Your task to perform on an android device: install app "Speedtest by Ookla" Image 0: 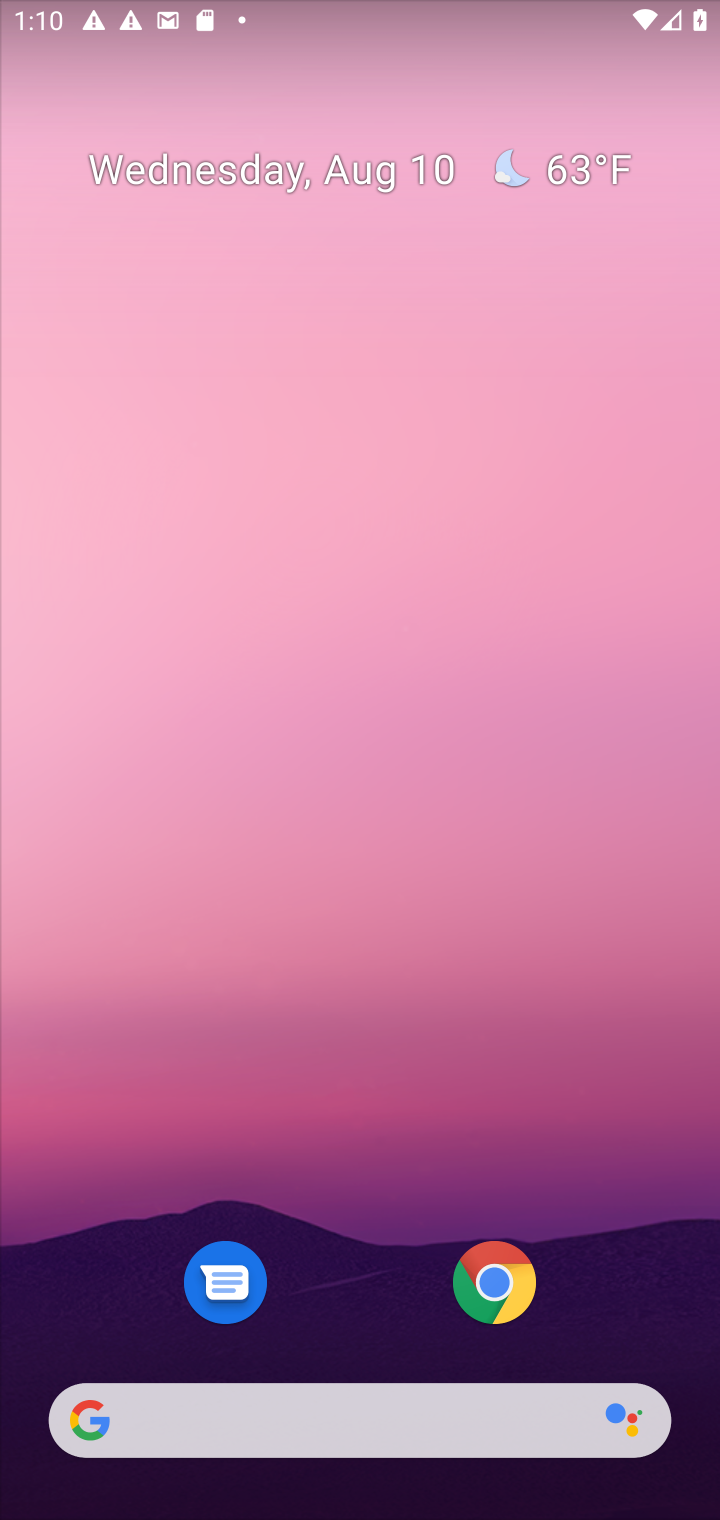
Step 0: drag from (97, 1251) to (117, 374)
Your task to perform on an android device: install app "Speedtest by Ookla" Image 1: 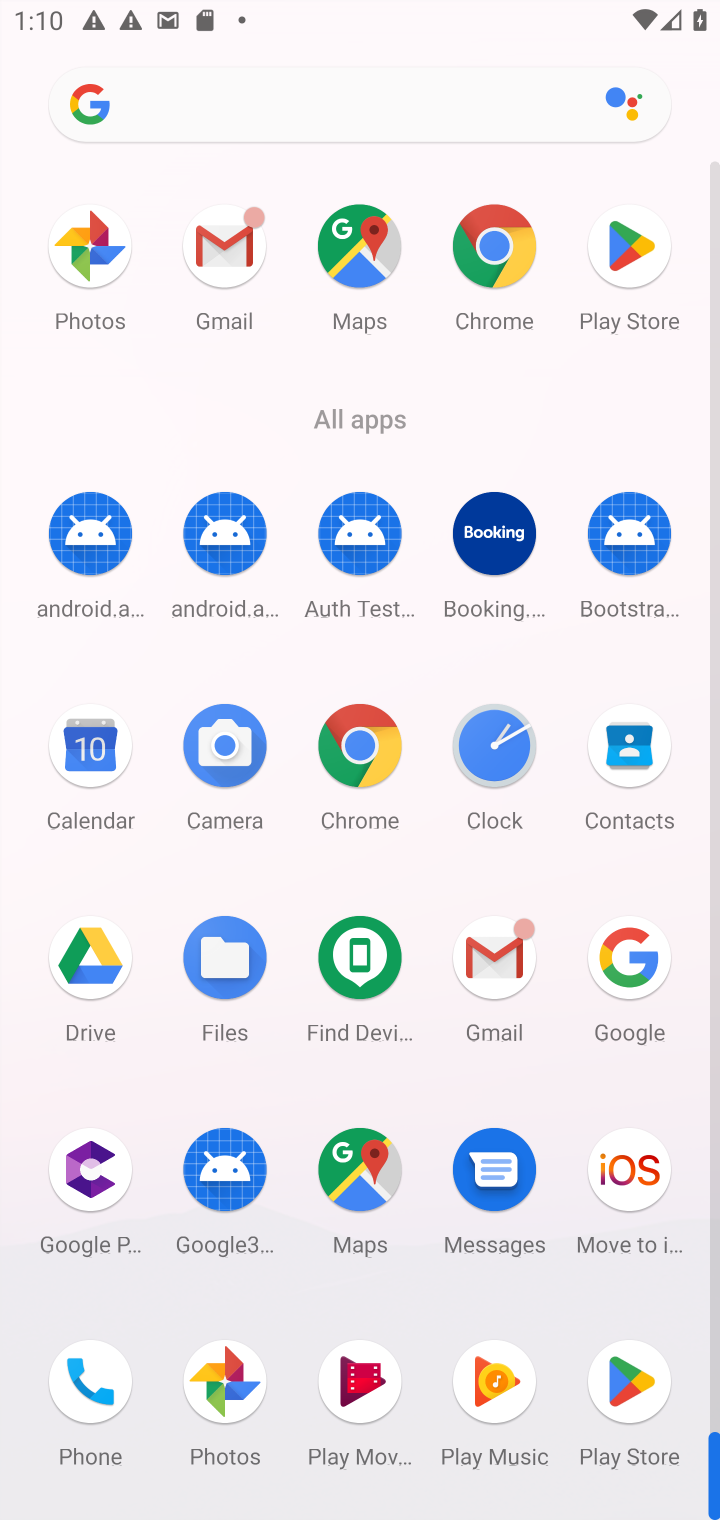
Step 1: click (634, 235)
Your task to perform on an android device: install app "Speedtest by Ookla" Image 2: 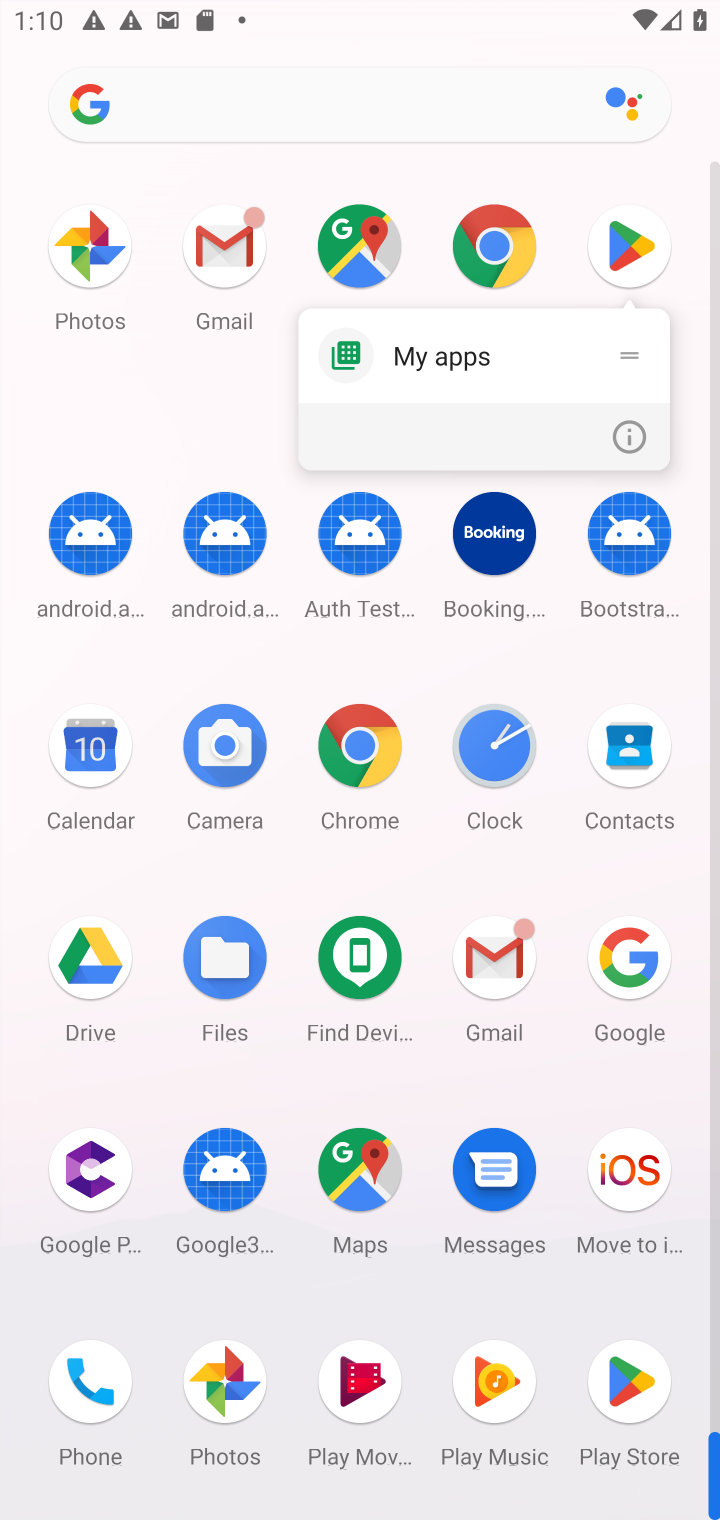
Step 2: click (612, 233)
Your task to perform on an android device: install app "Speedtest by Ookla" Image 3: 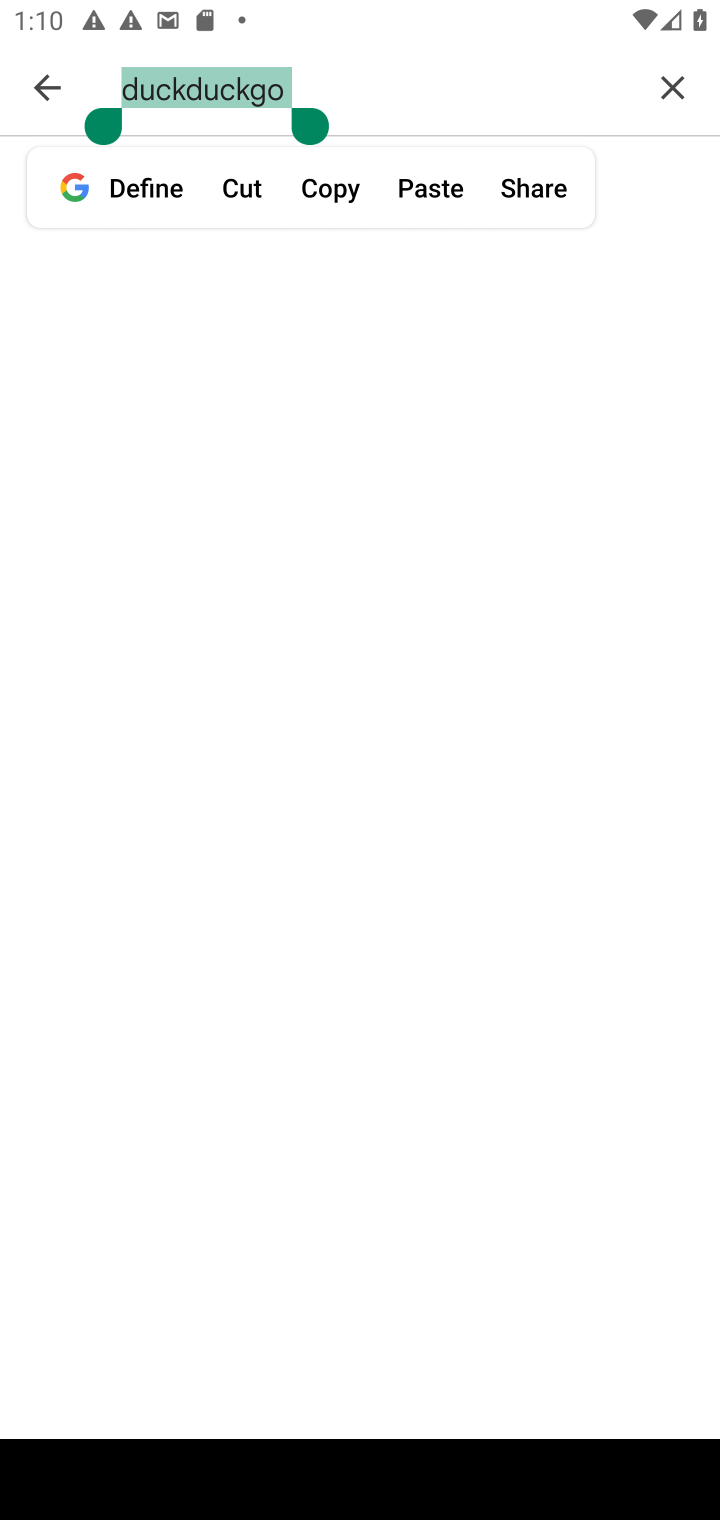
Step 3: click (668, 61)
Your task to perform on an android device: install app "Speedtest by Ookla" Image 4: 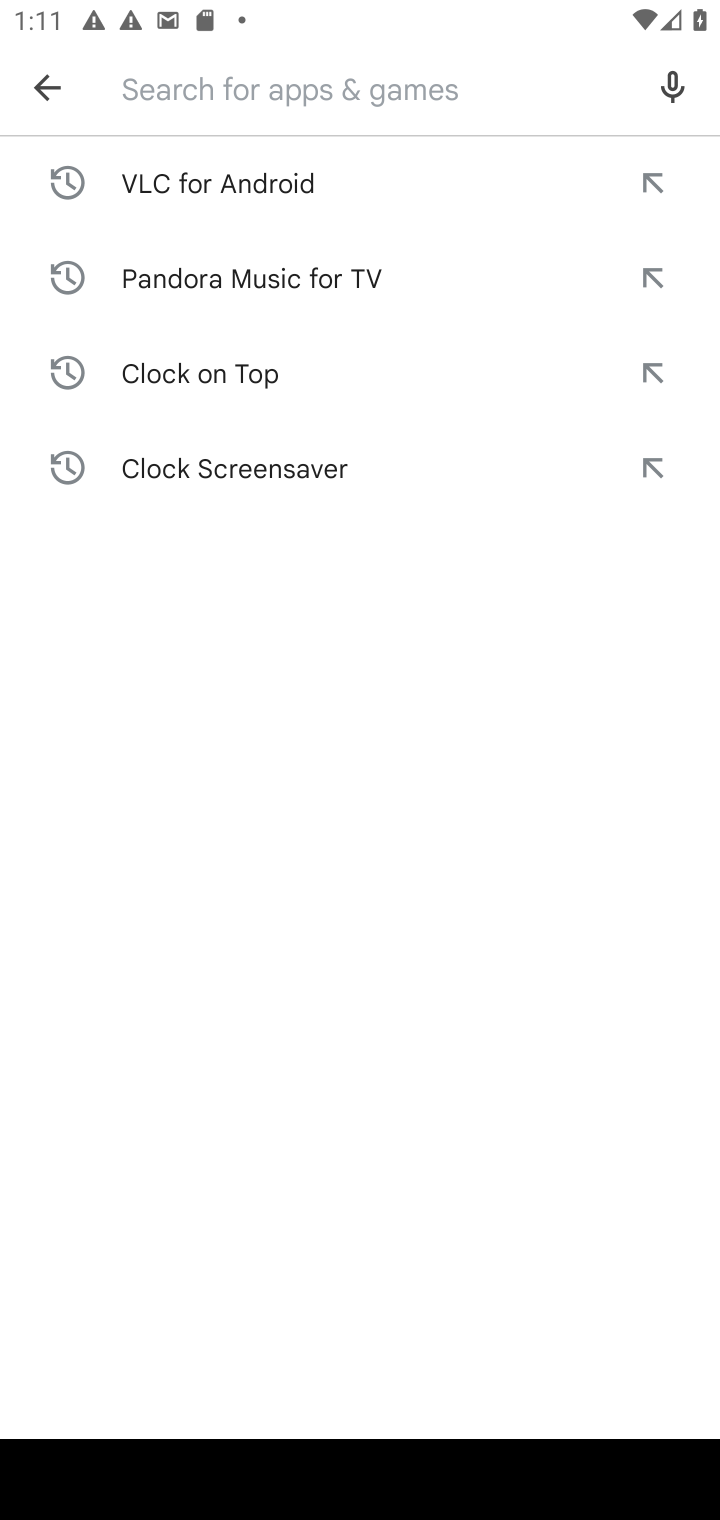
Step 4: click (356, 87)
Your task to perform on an android device: install app "Speedtest by Ookla" Image 5: 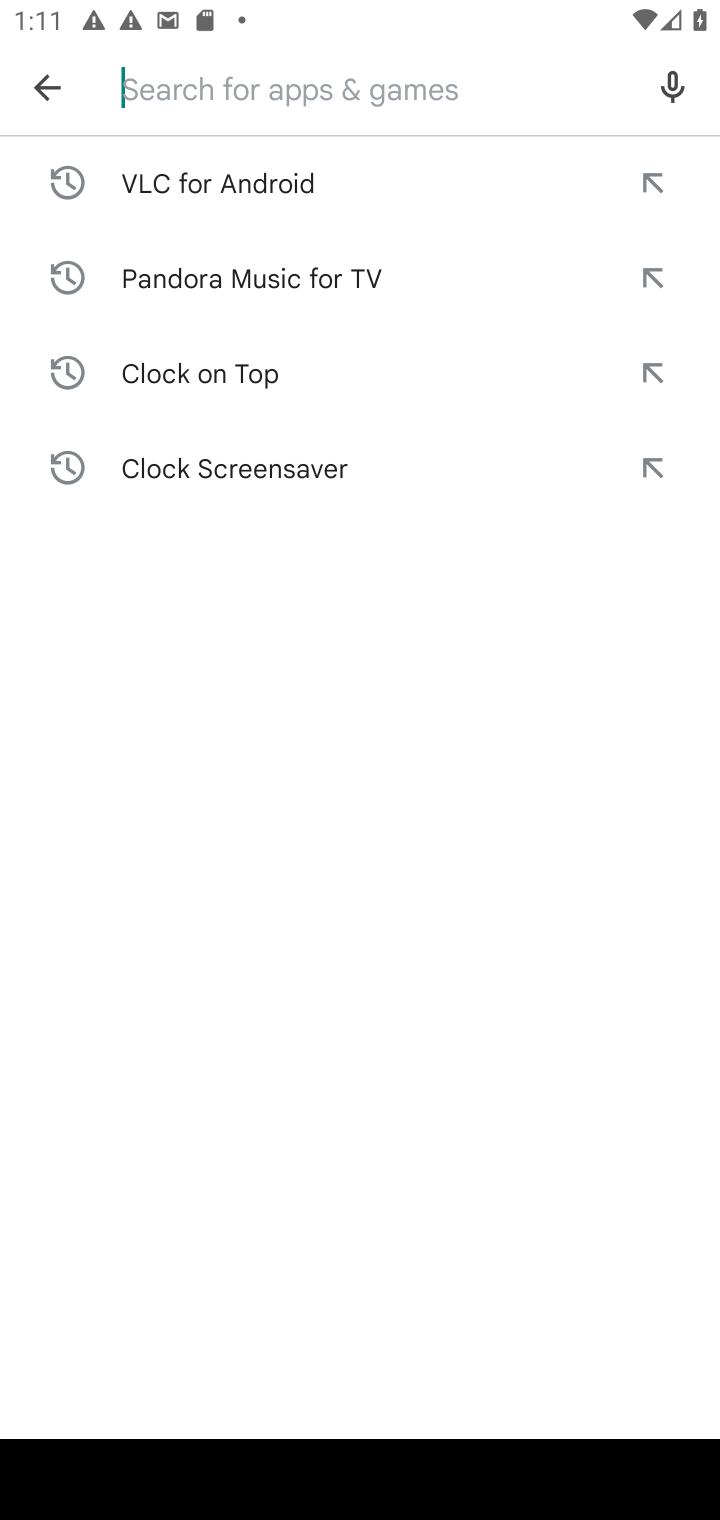
Step 5: type "Speedtest by Ookla "
Your task to perform on an android device: install app "Speedtest by Ookla" Image 6: 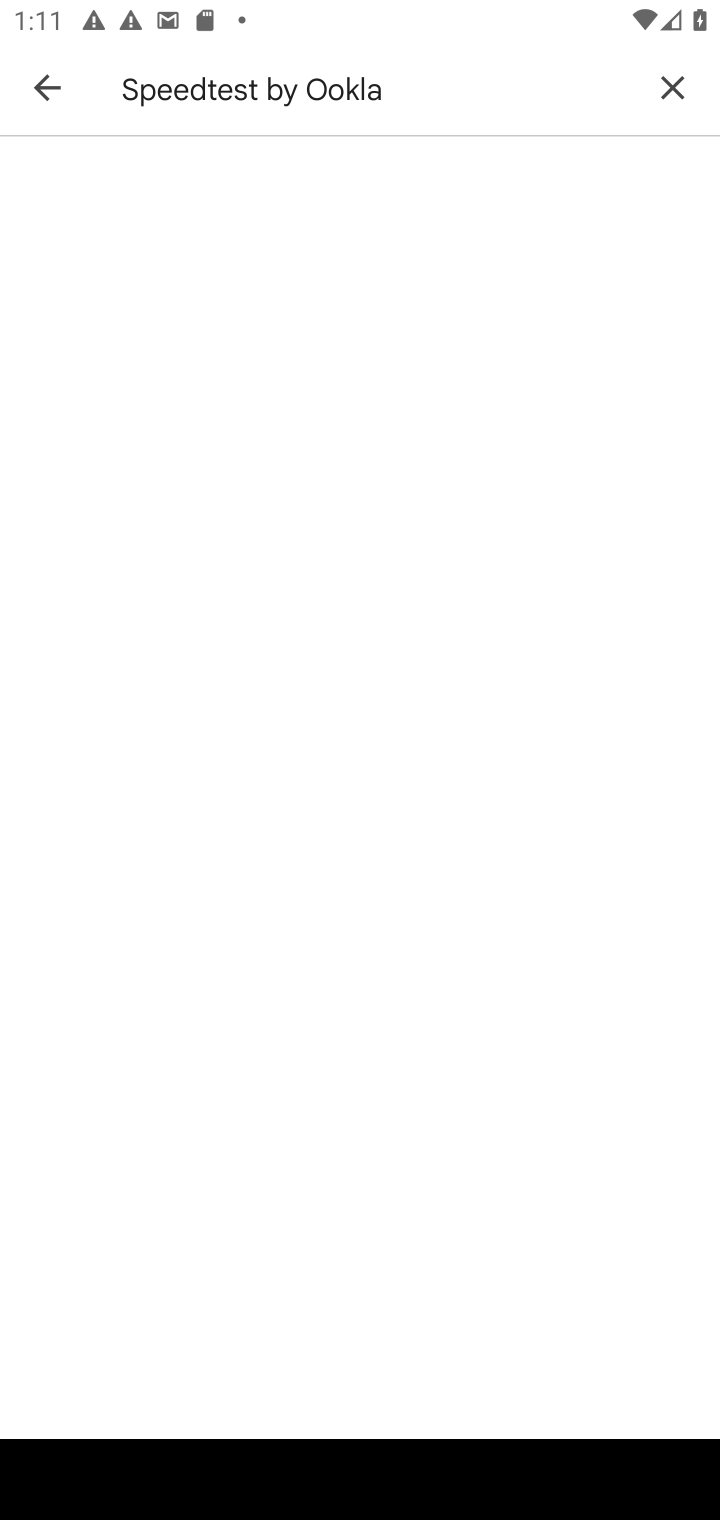
Step 6: click (509, 101)
Your task to perform on an android device: install app "Speedtest by Ookla" Image 7: 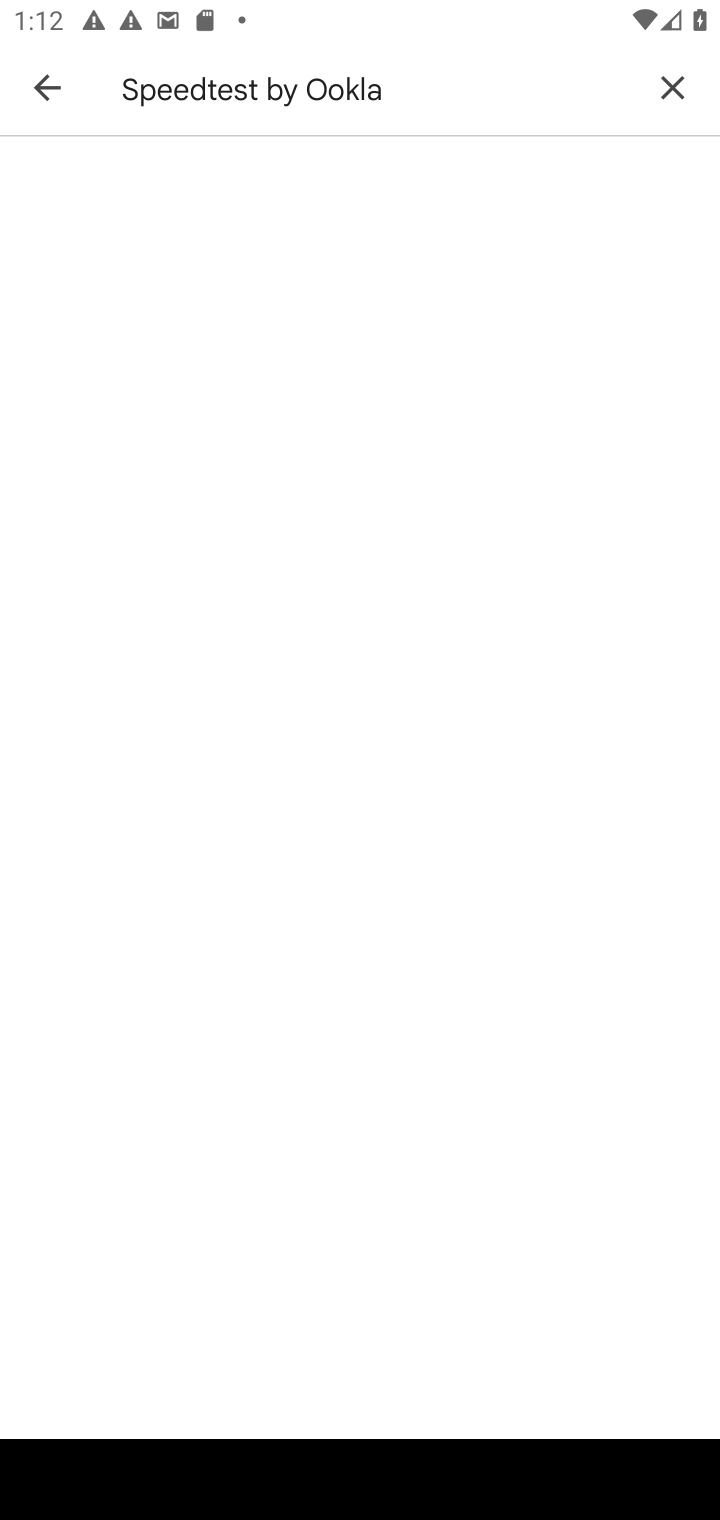
Step 7: task complete